Your task to perform on an android device: manage bookmarks in the chrome app Image 0: 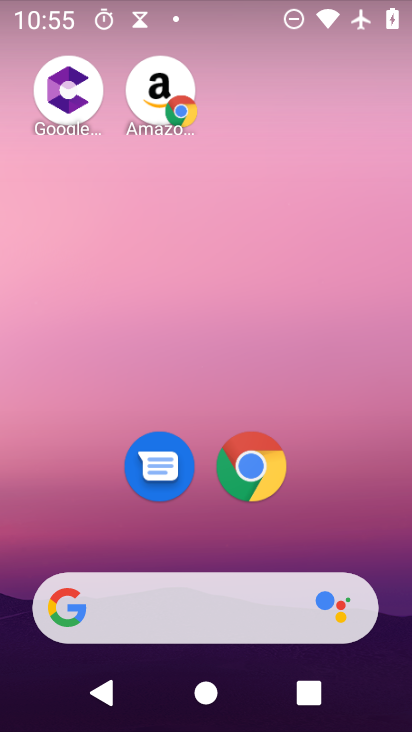
Step 0: drag from (383, 589) to (252, 20)
Your task to perform on an android device: manage bookmarks in the chrome app Image 1: 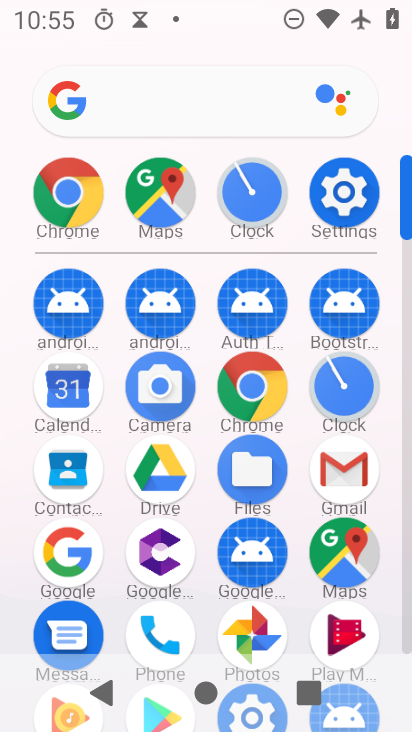
Step 1: drag from (14, 510) to (3, 196)
Your task to perform on an android device: manage bookmarks in the chrome app Image 2: 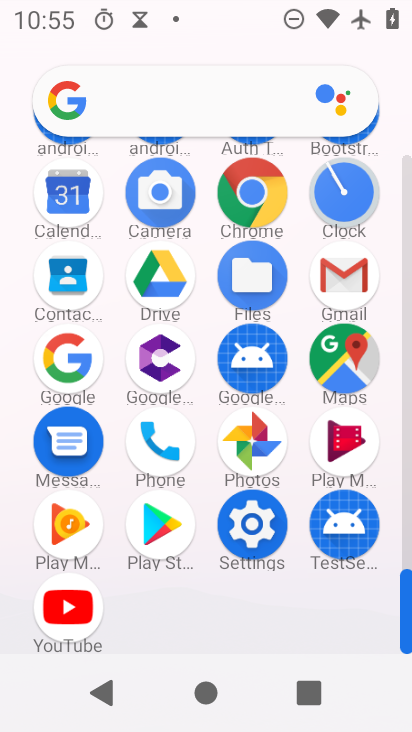
Step 2: click (250, 184)
Your task to perform on an android device: manage bookmarks in the chrome app Image 3: 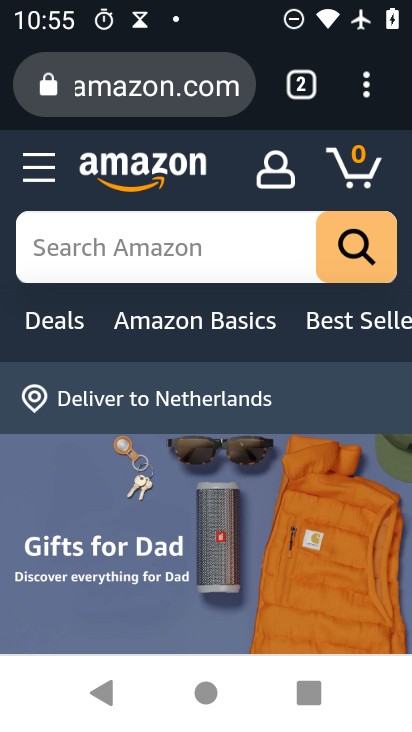
Step 3: drag from (367, 82) to (142, 317)
Your task to perform on an android device: manage bookmarks in the chrome app Image 4: 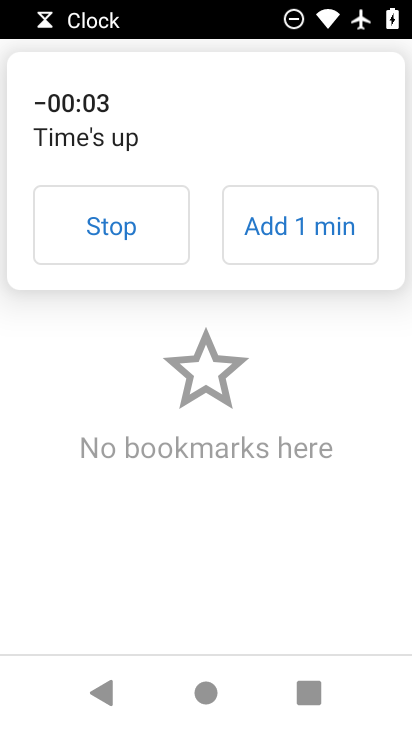
Step 4: click (110, 226)
Your task to perform on an android device: manage bookmarks in the chrome app Image 5: 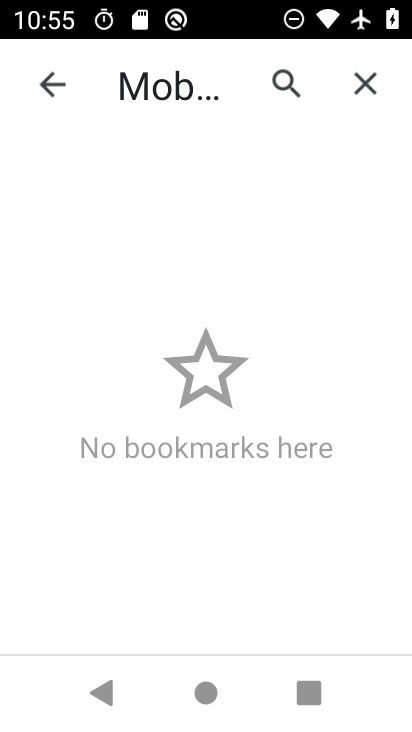
Step 5: task complete